Your task to perform on an android device: Open privacy settings Image 0: 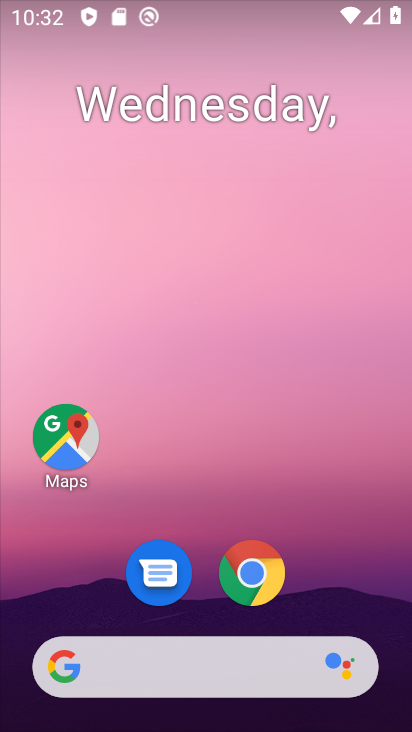
Step 0: drag from (356, 596) to (352, 207)
Your task to perform on an android device: Open privacy settings Image 1: 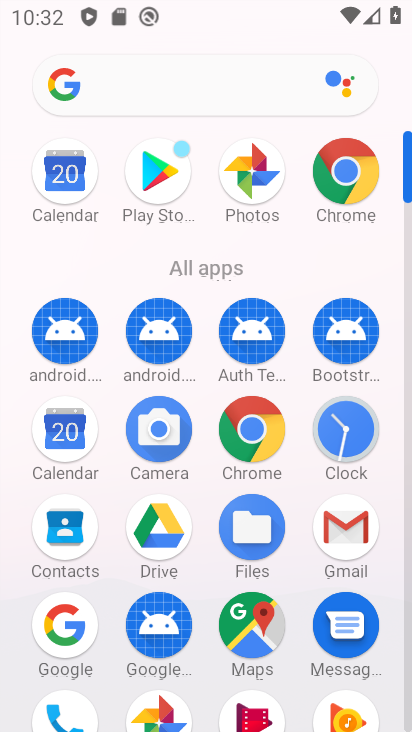
Step 1: drag from (283, 670) to (301, 280)
Your task to perform on an android device: Open privacy settings Image 2: 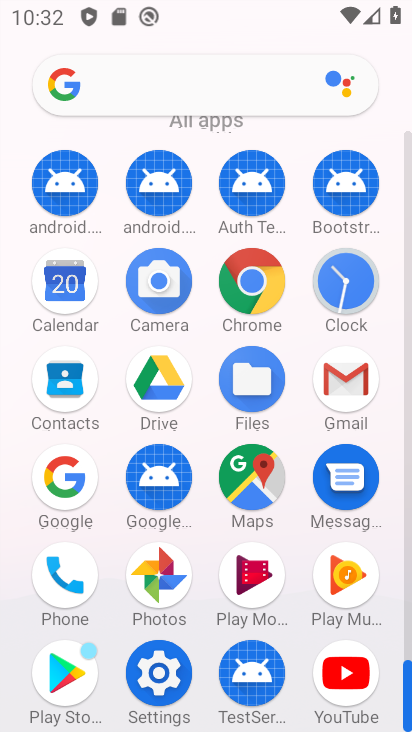
Step 2: click (152, 684)
Your task to perform on an android device: Open privacy settings Image 3: 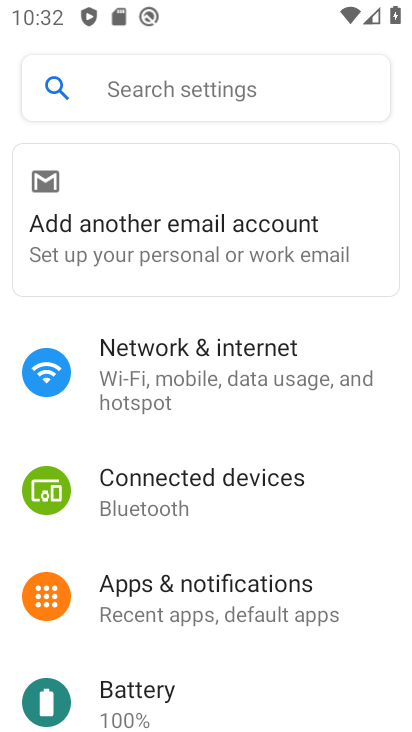
Step 3: drag from (230, 661) to (232, 255)
Your task to perform on an android device: Open privacy settings Image 4: 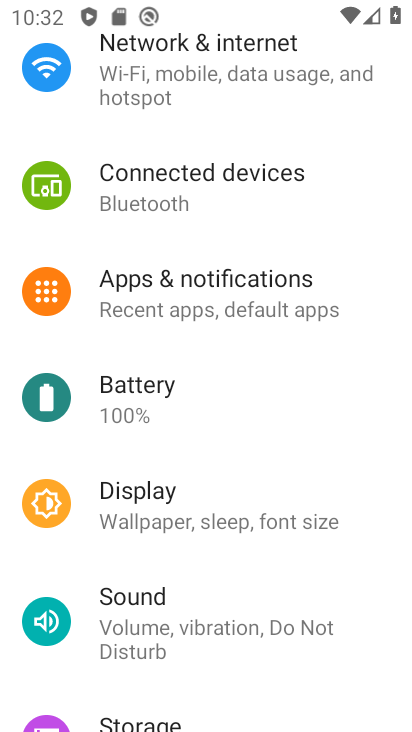
Step 4: drag from (192, 655) to (215, 346)
Your task to perform on an android device: Open privacy settings Image 5: 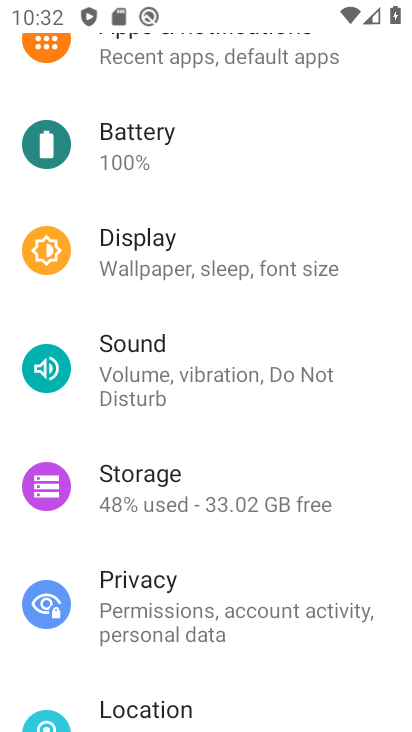
Step 5: click (179, 627)
Your task to perform on an android device: Open privacy settings Image 6: 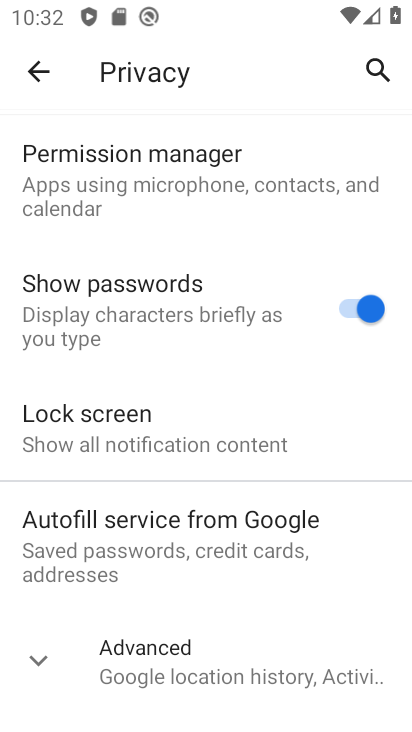
Step 6: task complete